Your task to perform on an android device: Go to display settings Image 0: 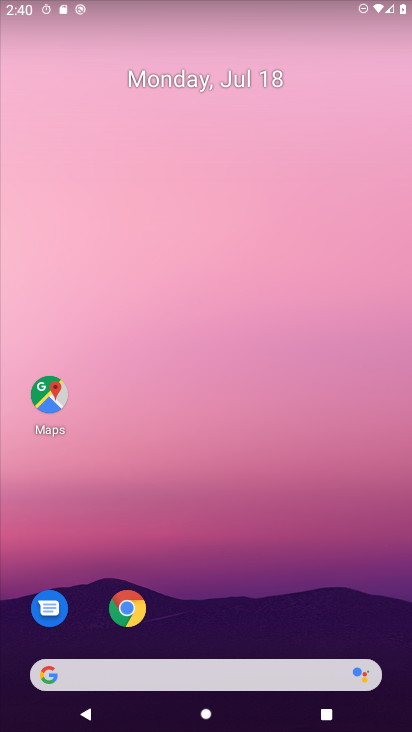
Step 0: drag from (226, 722) to (208, 45)
Your task to perform on an android device: Go to display settings Image 1: 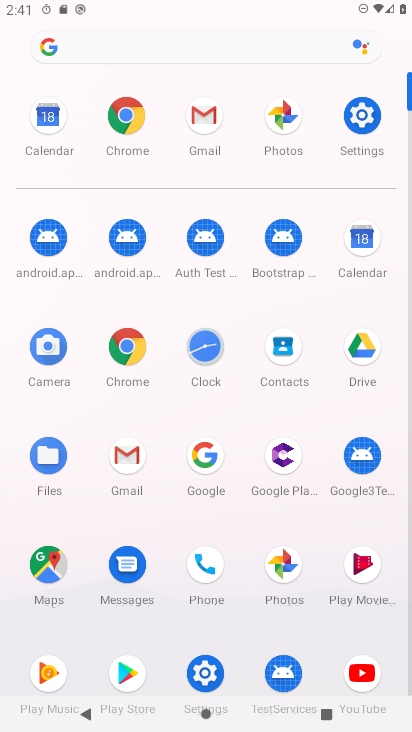
Step 1: click (359, 120)
Your task to perform on an android device: Go to display settings Image 2: 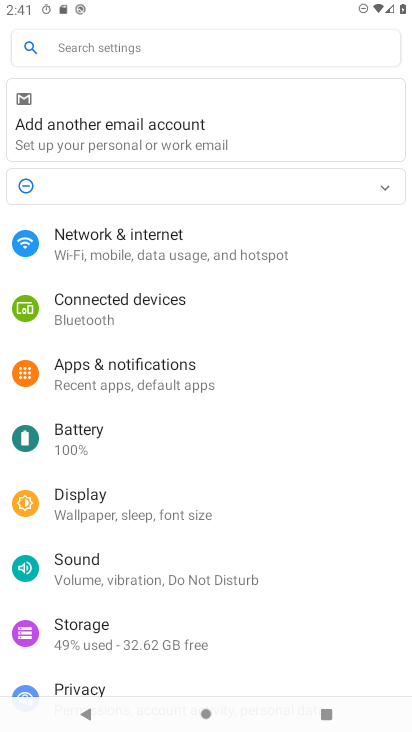
Step 2: click (83, 500)
Your task to perform on an android device: Go to display settings Image 3: 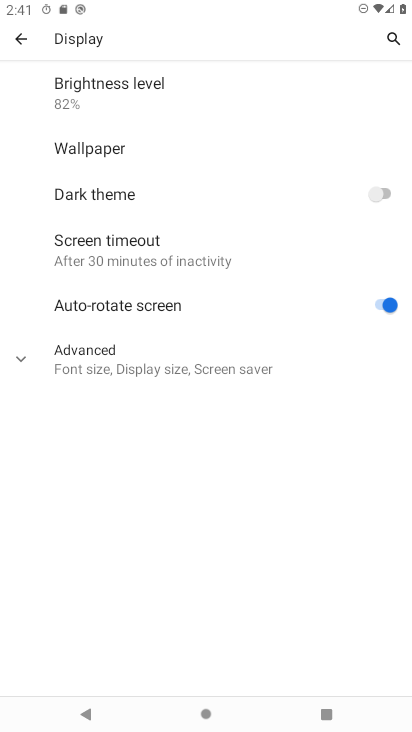
Step 3: task complete